Your task to perform on an android device: Turn on the flashlight Image 0: 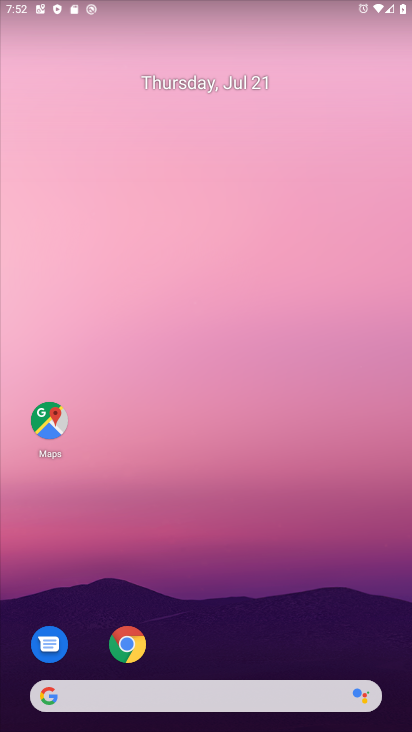
Step 0: drag from (309, 653) to (232, 165)
Your task to perform on an android device: Turn on the flashlight Image 1: 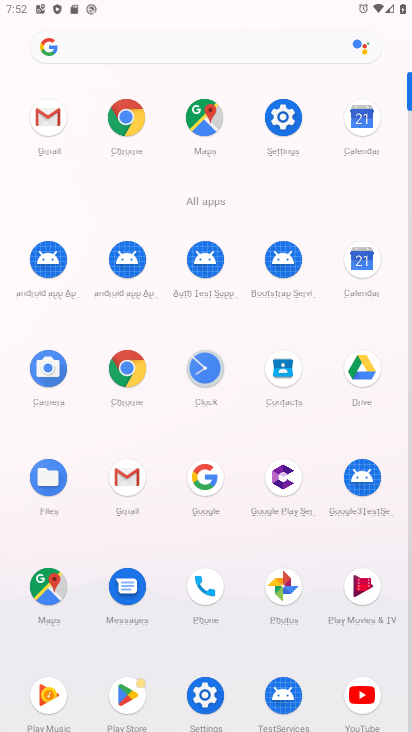
Step 1: click (289, 118)
Your task to perform on an android device: Turn on the flashlight Image 2: 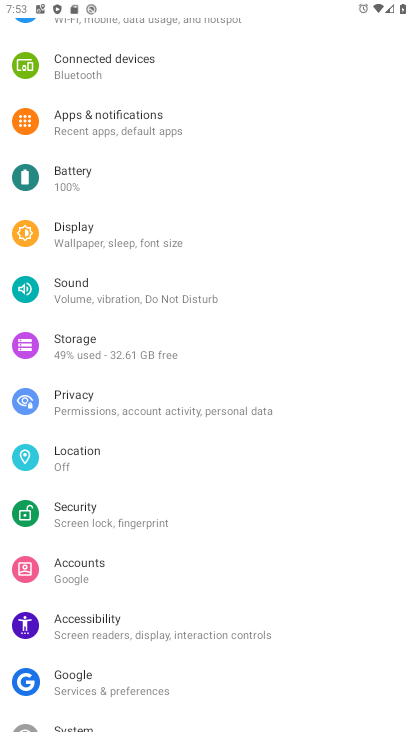
Step 2: task complete